Your task to perform on an android device: Check the news Image 0: 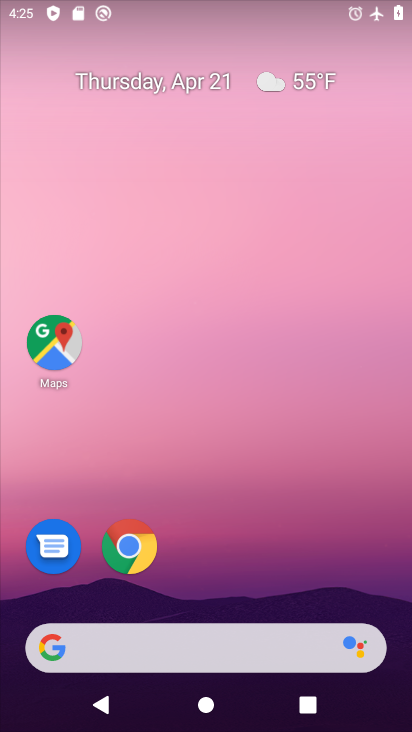
Step 0: drag from (225, 266) to (238, 126)
Your task to perform on an android device: Check the news Image 1: 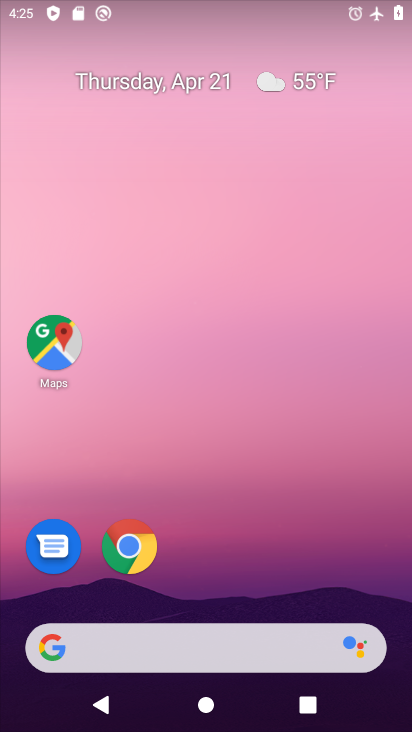
Step 1: drag from (262, 573) to (312, 162)
Your task to perform on an android device: Check the news Image 2: 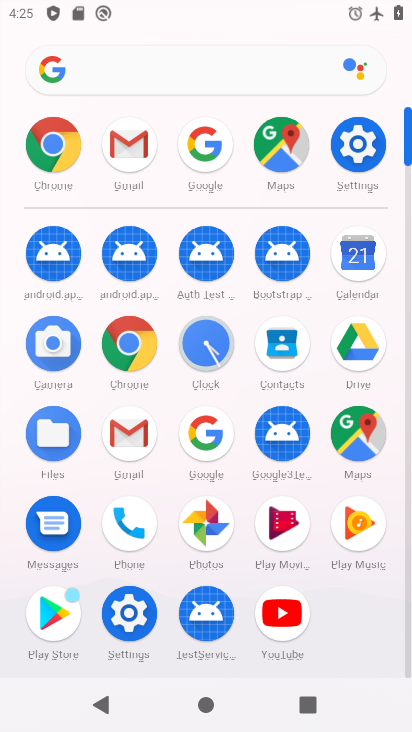
Step 2: click (139, 350)
Your task to perform on an android device: Check the news Image 3: 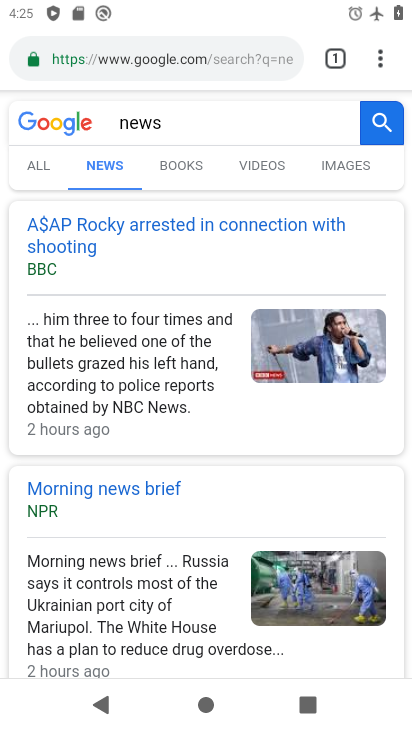
Step 3: task complete